Your task to perform on an android device: Search for "usb-a to usb-b" on bestbuy, select the first entry, add it to the cart, then select checkout. Image 0: 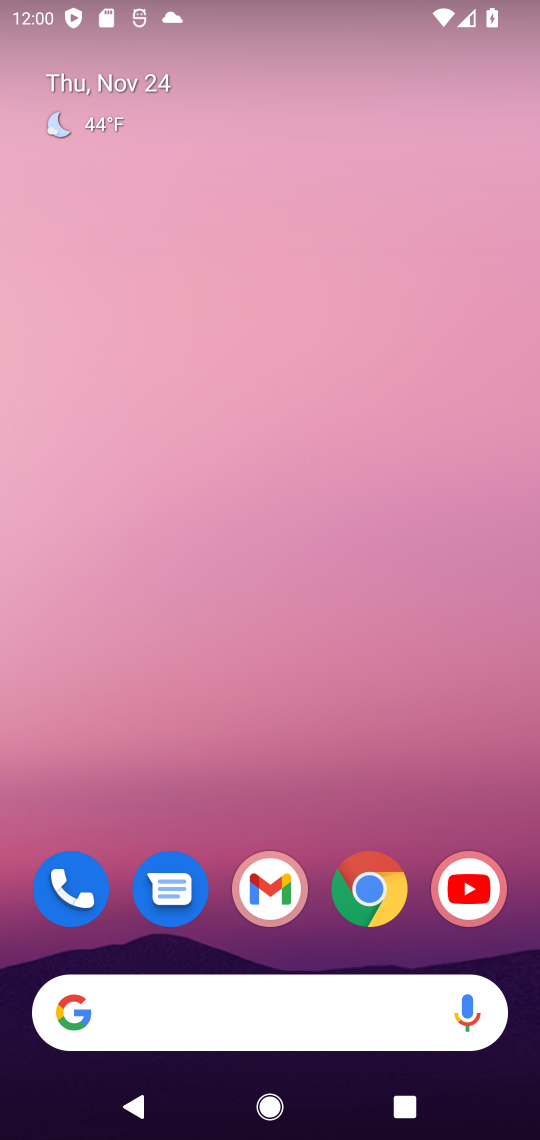
Step 0: click (376, 899)
Your task to perform on an android device: Search for "usb-a to usb-b" on bestbuy, select the first entry, add it to the cart, then select checkout. Image 1: 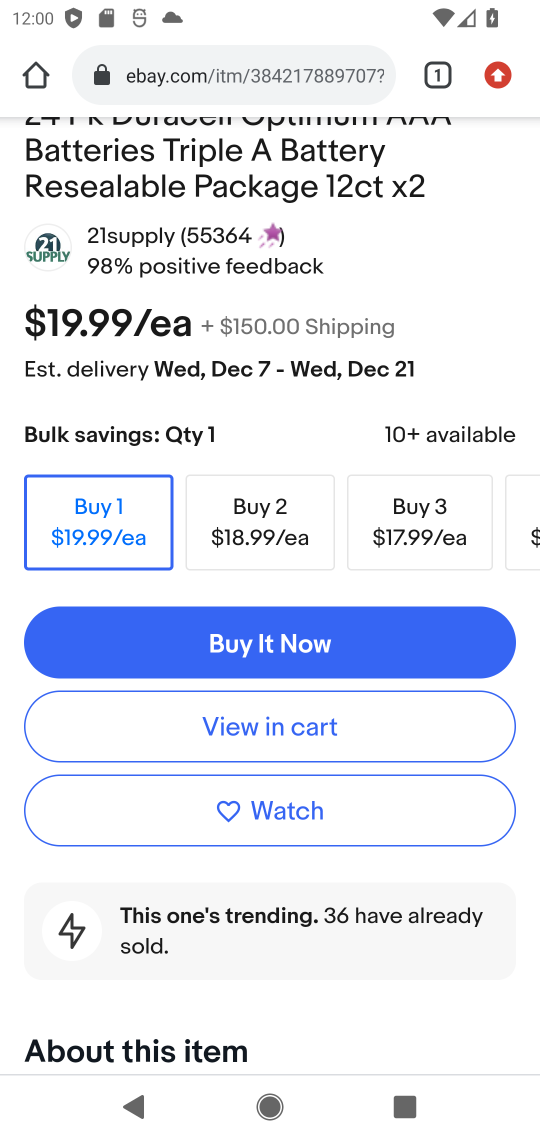
Step 1: click (186, 75)
Your task to perform on an android device: Search for "usb-a to usb-b" on bestbuy, select the first entry, add it to the cart, then select checkout. Image 2: 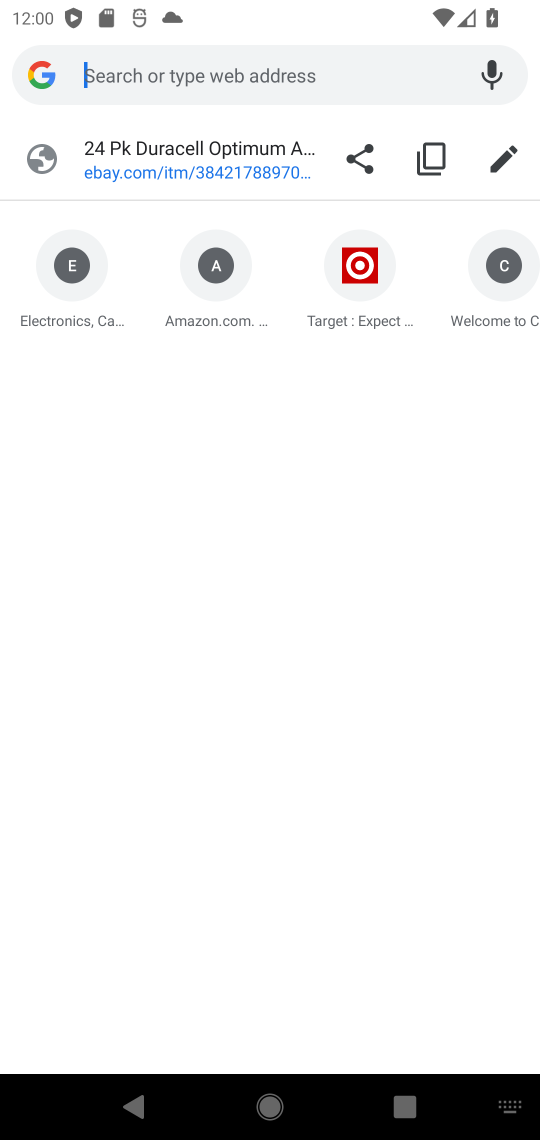
Step 2: type "bestbuy.com"
Your task to perform on an android device: Search for "usb-a to usb-b" on bestbuy, select the first entry, add it to the cart, then select checkout. Image 3: 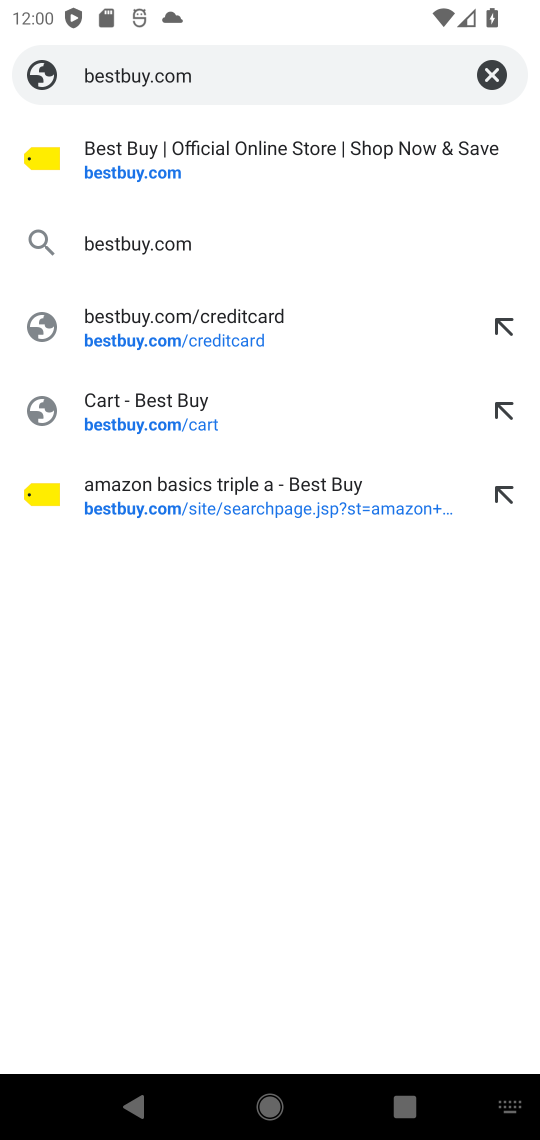
Step 3: click (119, 161)
Your task to perform on an android device: Search for "usb-a to usb-b" on bestbuy, select the first entry, add it to the cart, then select checkout. Image 4: 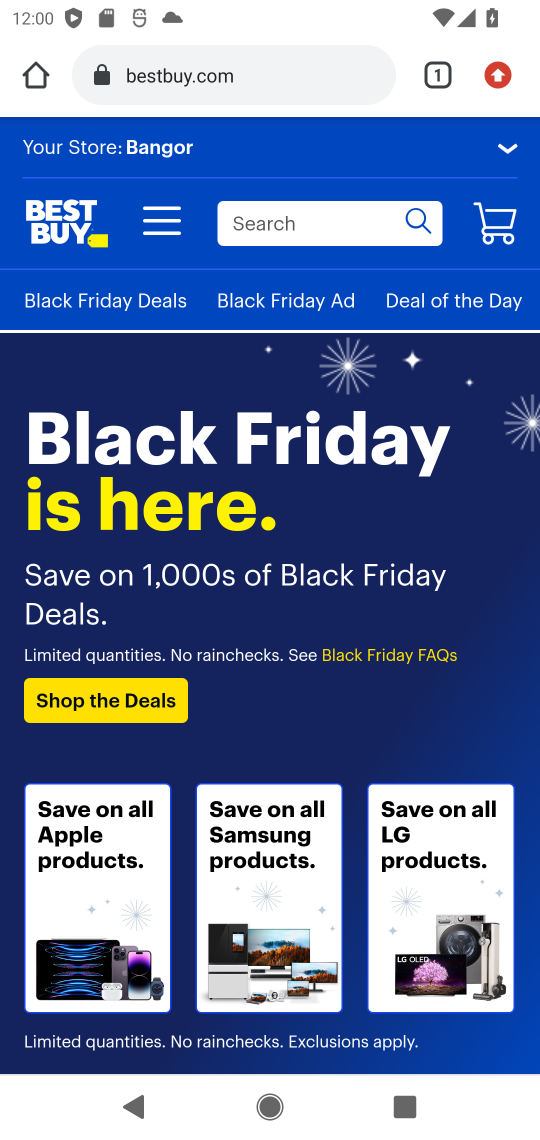
Step 4: click (264, 230)
Your task to perform on an android device: Search for "usb-a to usb-b" on bestbuy, select the first entry, add it to the cart, then select checkout. Image 5: 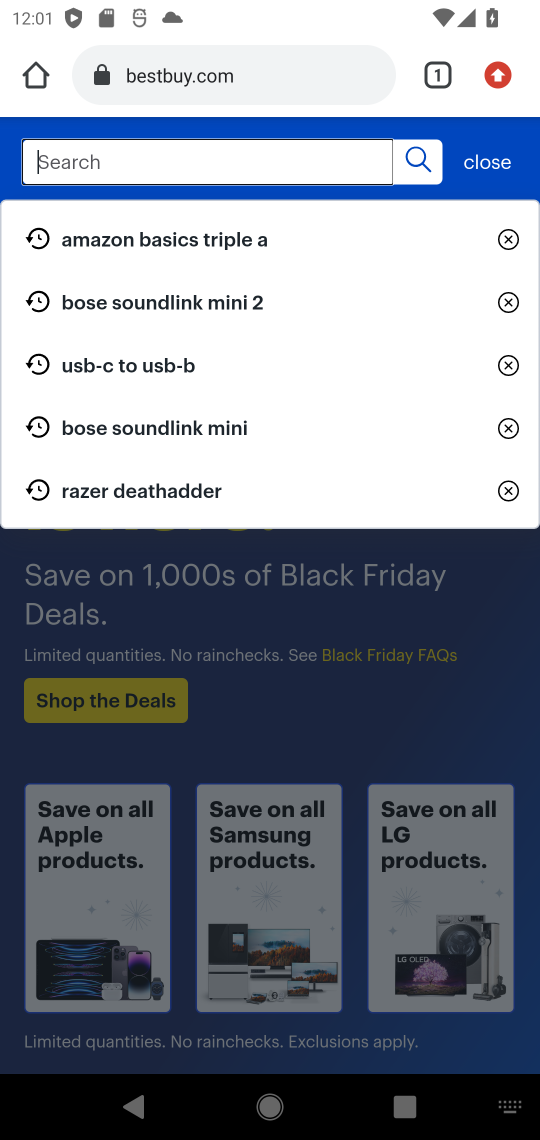
Step 5: type "usb-a to usb-b"
Your task to perform on an android device: Search for "usb-a to usb-b" on bestbuy, select the first entry, add it to the cart, then select checkout. Image 6: 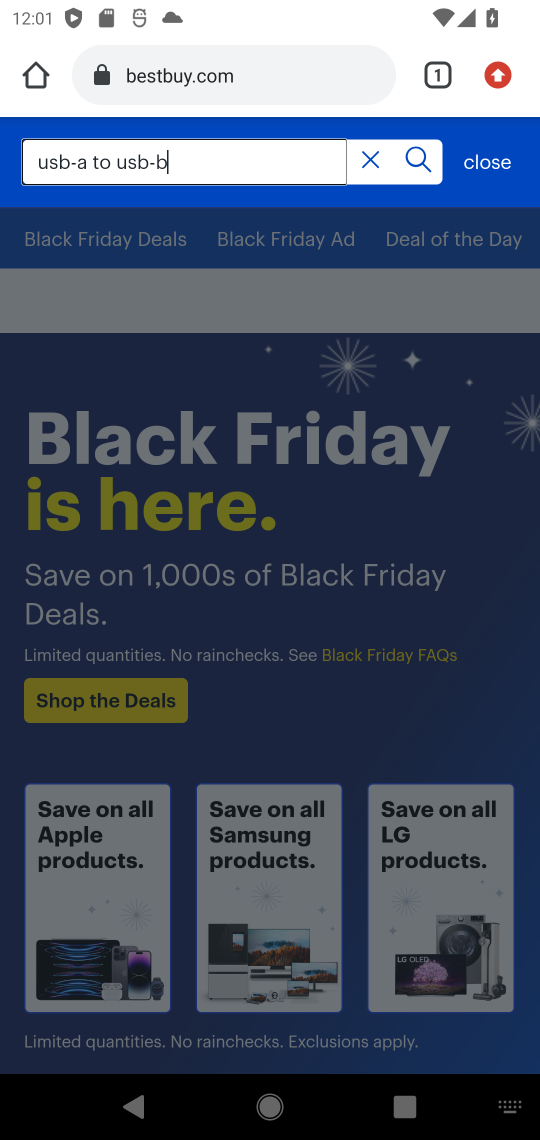
Step 6: click (422, 159)
Your task to perform on an android device: Search for "usb-a to usb-b" on bestbuy, select the first entry, add it to the cart, then select checkout. Image 7: 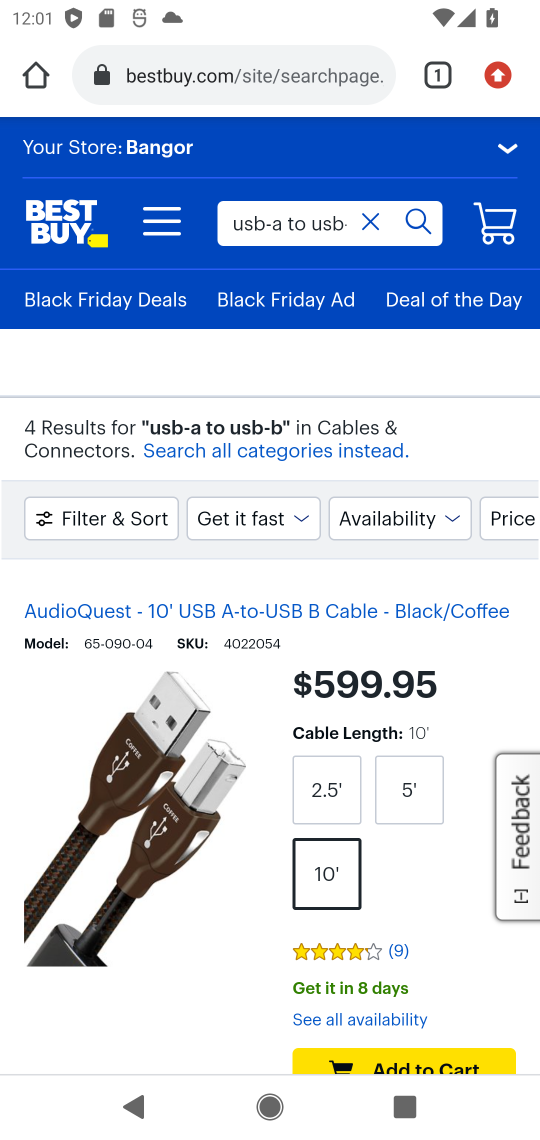
Step 7: drag from (101, 770) to (116, 563)
Your task to perform on an android device: Search for "usb-a to usb-b" on bestbuy, select the first entry, add it to the cart, then select checkout. Image 8: 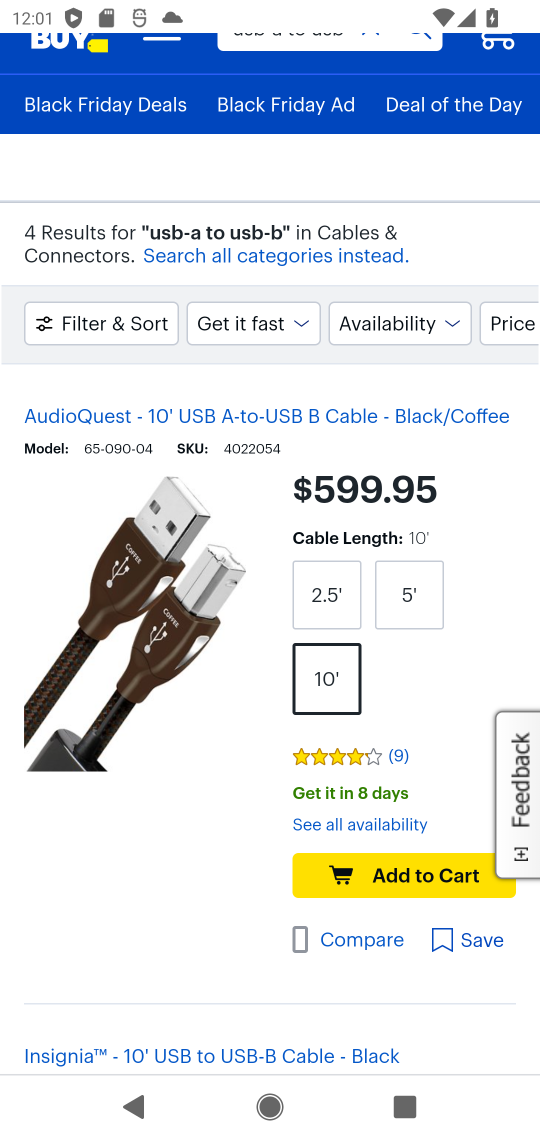
Step 8: click (380, 870)
Your task to perform on an android device: Search for "usb-a to usb-b" on bestbuy, select the first entry, add it to the cart, then select checkout. Image 9: 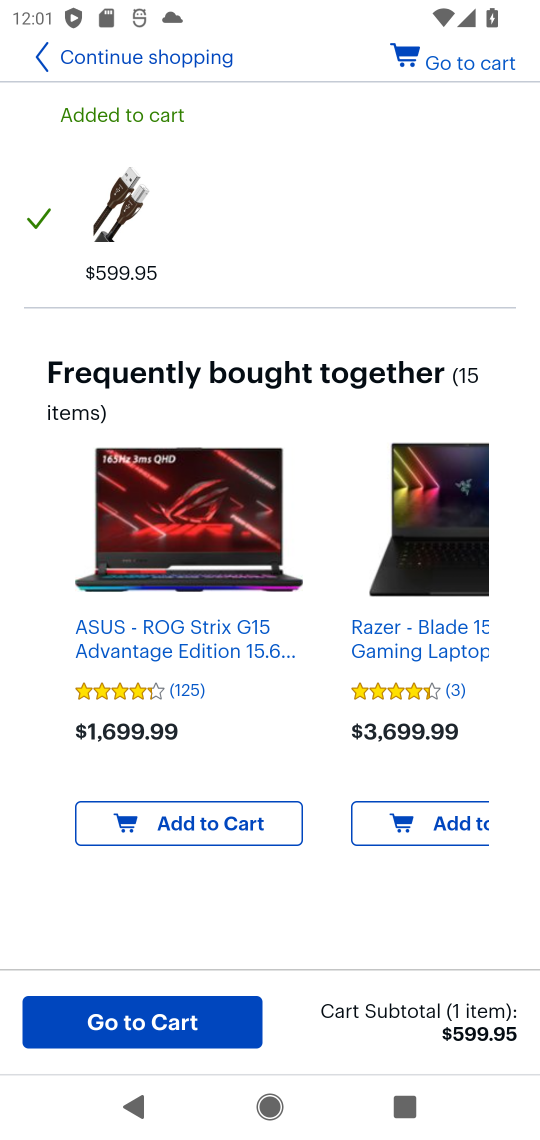
Step 9: click (459, 63)
Your task to perform on an android device: Search for "usb-a to usb-b" on bestbuy, select the first entry, add it to the cart, then select checkout. Image 10: 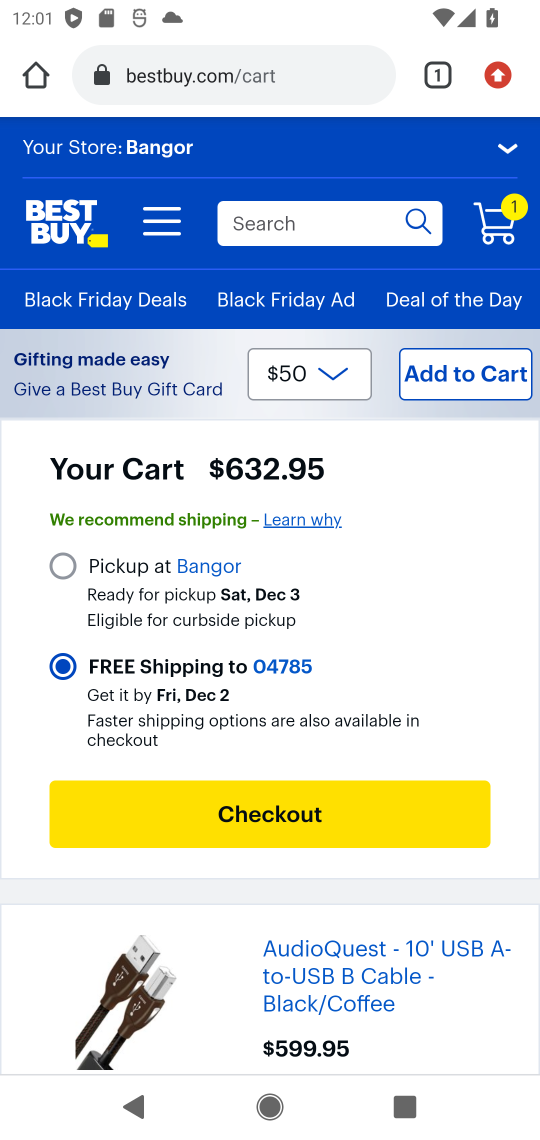
Step 10: click (265, 810)
Your task to perform on an android device: Search for "usb-a to usb-b" on bestbuy, select the first entry, add it to the cart, then select checkout. Image 11: 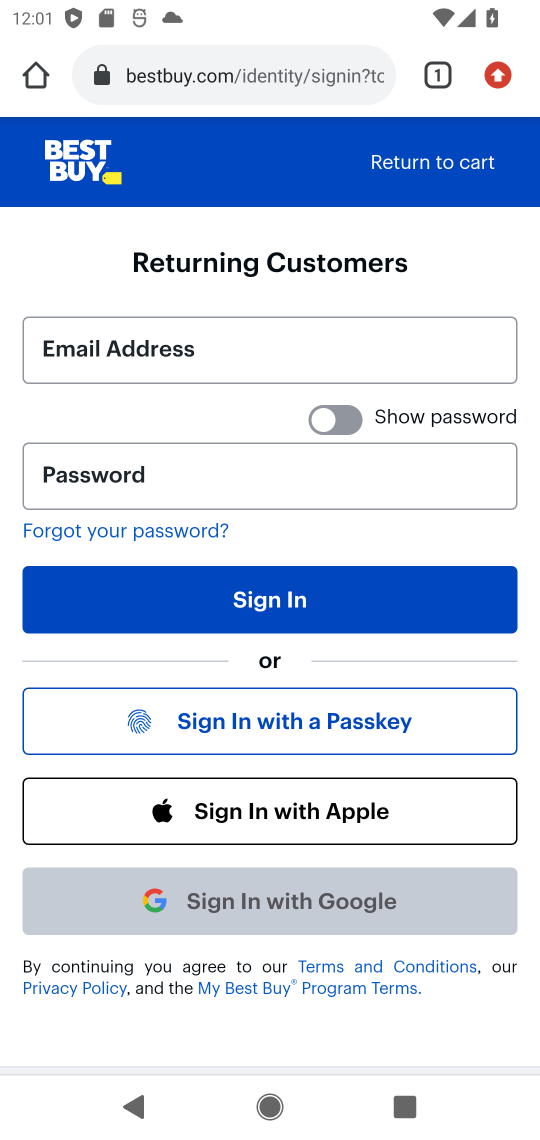
Step 11: task complete